Your task to perform on an android device: Go to Maps Image 0: 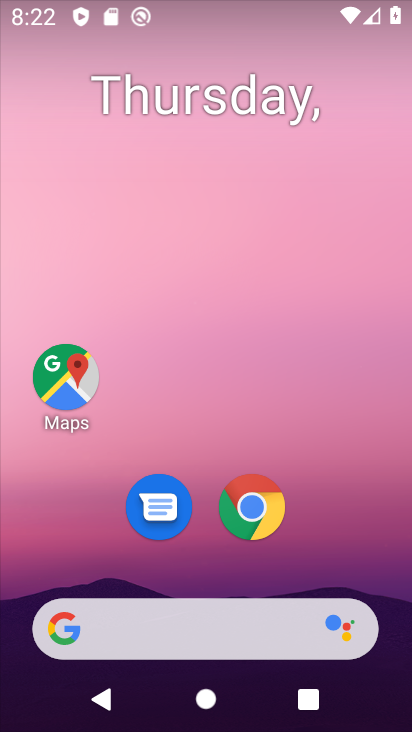
Step 0: click (36, 374)
Your task to perform on an android device: Go to Maps Image 1: 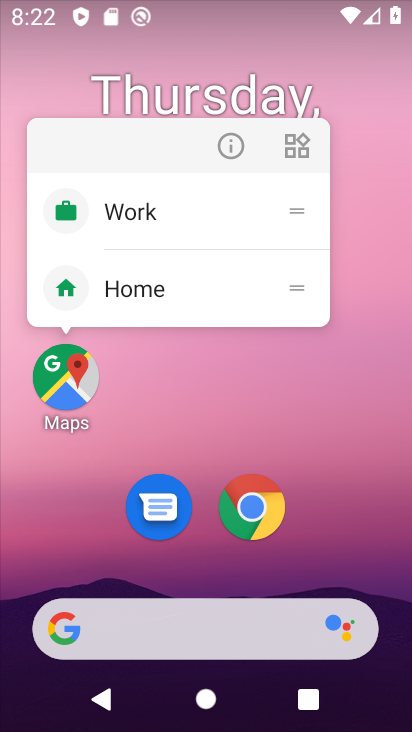
Step 1: click (75, 376)
Your task to perform on an android device: Go to Maps Image 2: 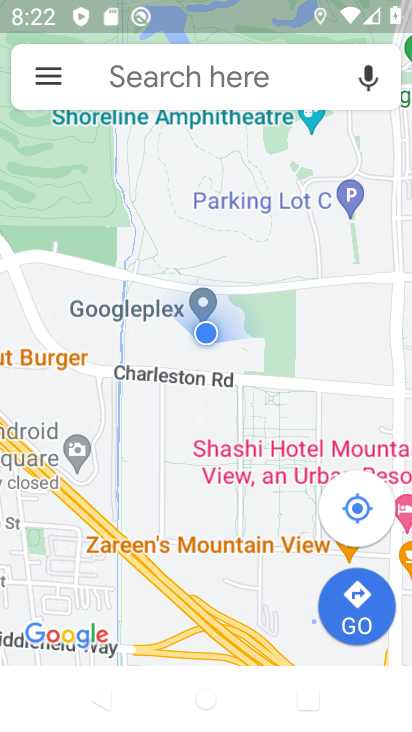
Step 2: task complete